Your task to perform on an android device: Play the last video I watched on Youtube Image 0: 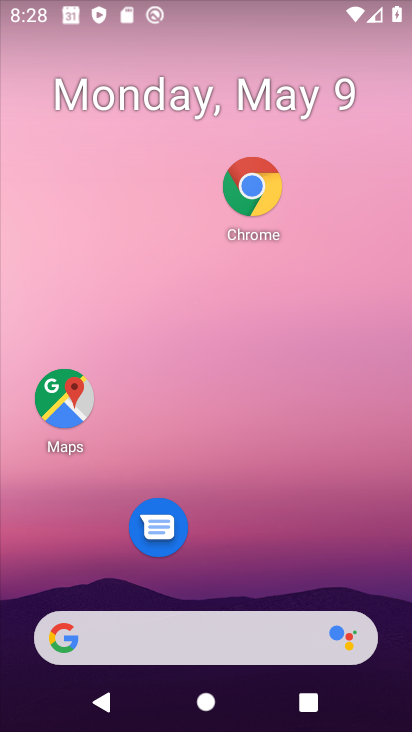
Step 0: press home button
Your task to perform on an android device: Play the last video I watched on Youtube Image 1: 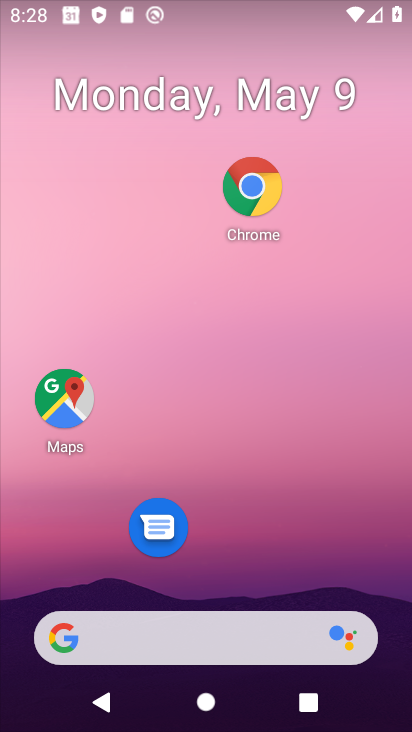
Step 1: drag from (217, 576) to (201, 46)
Your task to perform on an android device: Play the last video I watched on Youtube Image 2: 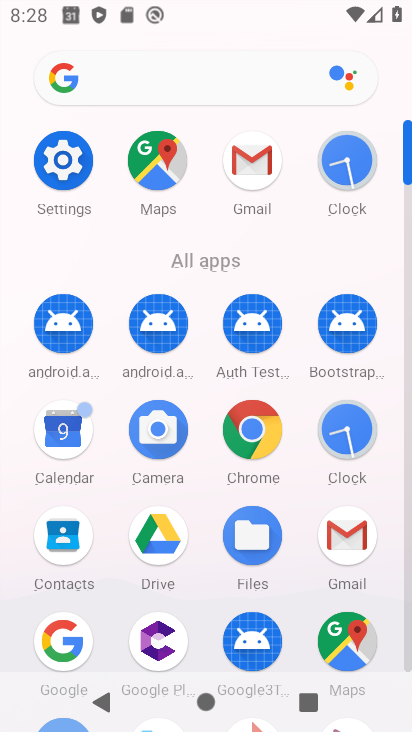
Step 2: drag from (199, 622) to (199, 204)
Your task to perform on an android device: Play the last video I watched on Youtube Image 3: 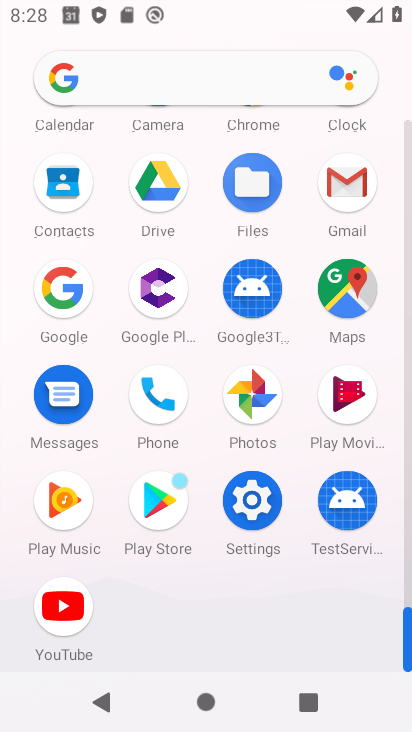
Step 3: click (58, 600)
Your task to perform on an android device: Play the last video I watched on Youtube Image 4: 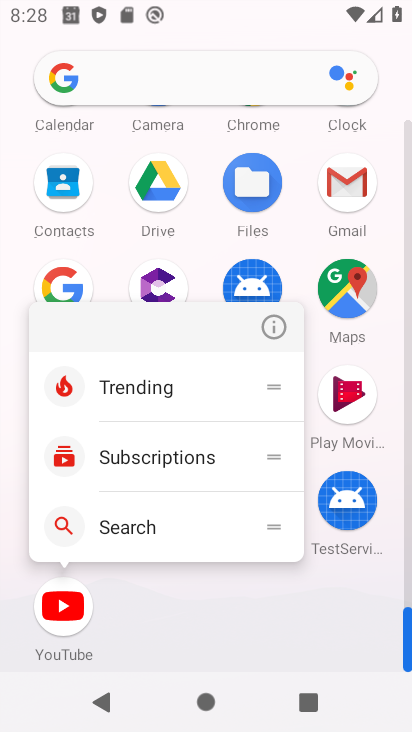
Step 4: click (58, 600)
Your task to perform on an android device: Play the last video I watched on Youtube Image 5: 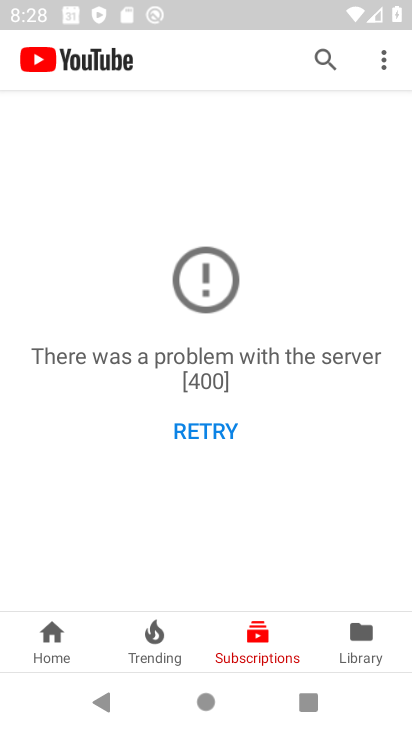
Step 5: click (356, 631)
Your task to perform on an android device: Play the last video I watched on Youtube Image 6: 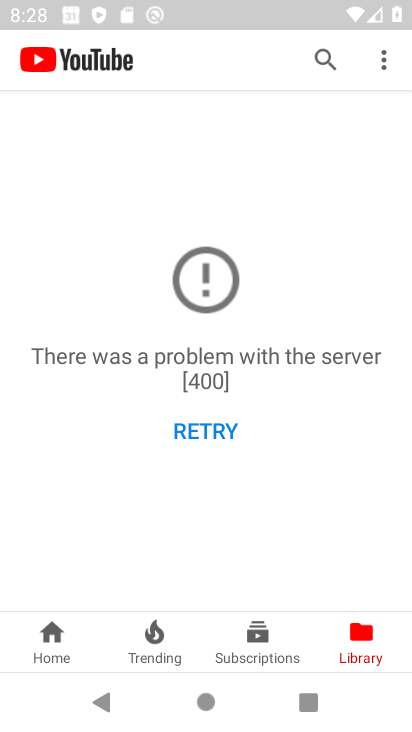
Step 6: task complete